Your task to perform on an android device: Open the map Image 0: 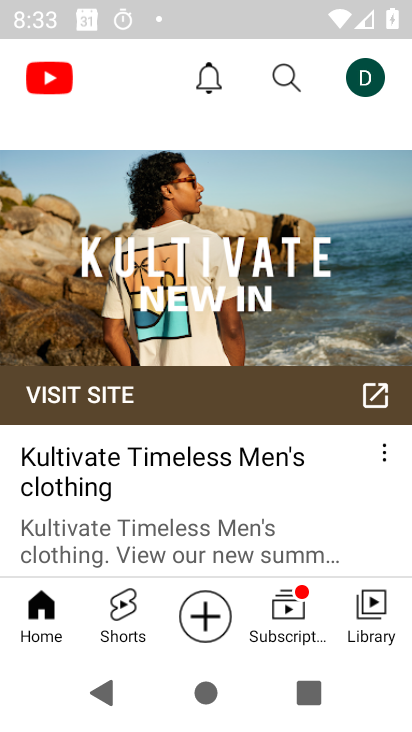
Step 0: press home button
Your task to perform on an android device: Open the map Image 1: 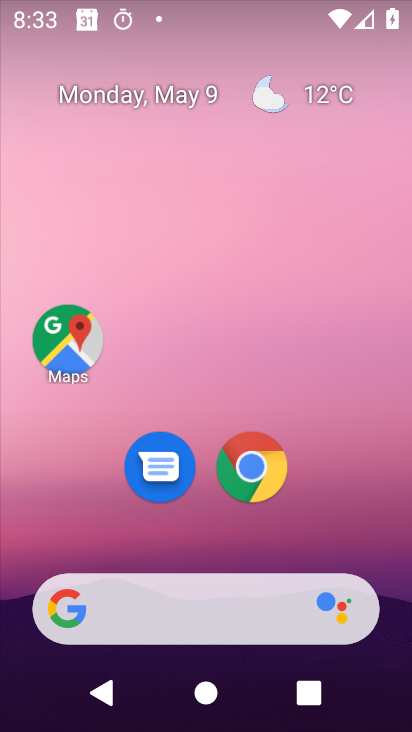
Step 1: click (61, 348)
Your task to perform on an android device: Open the map Image 2: 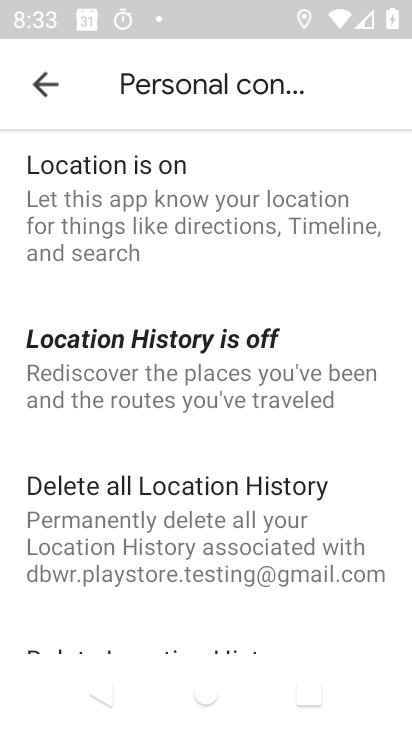
Step 2: click (52, 94)
Your task to perform on an android device: Open the map Image 3: 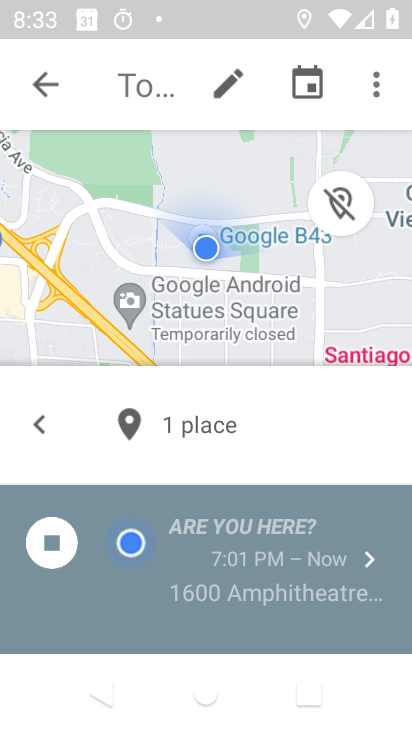
Step 3: click (52, 94)
Your task to perform on an android device: Open the map Image 4: 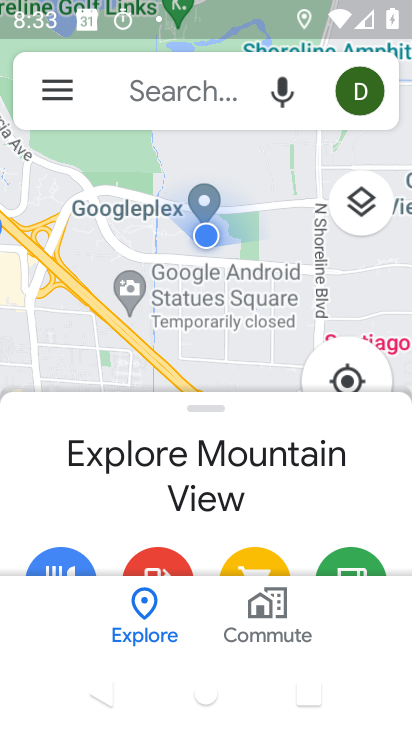
Step 4: task complete